Your task to perform on an android device: change the clock style Image 0: 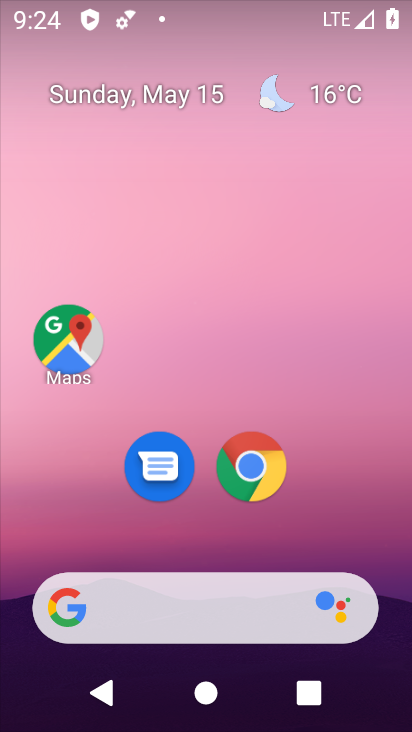
Step 0: drag from (88, 562) to (225, 127)
Your task to perform on an android device: change the clock style Image 1: 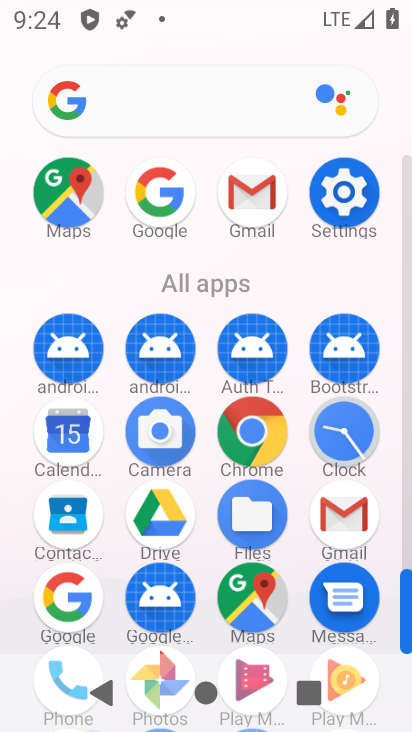
Step 1: click (361, 431)
Your task to perform on an android device: change the clock style Image 2: 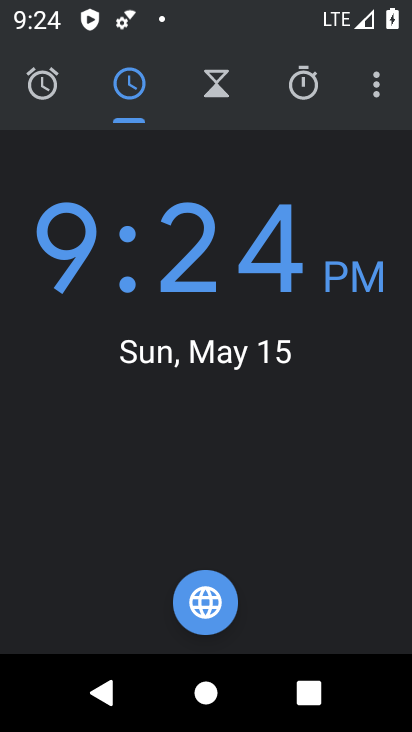
Step 2: click (375, 92)
Your task to perform on an android device: change the clock style Image 3: 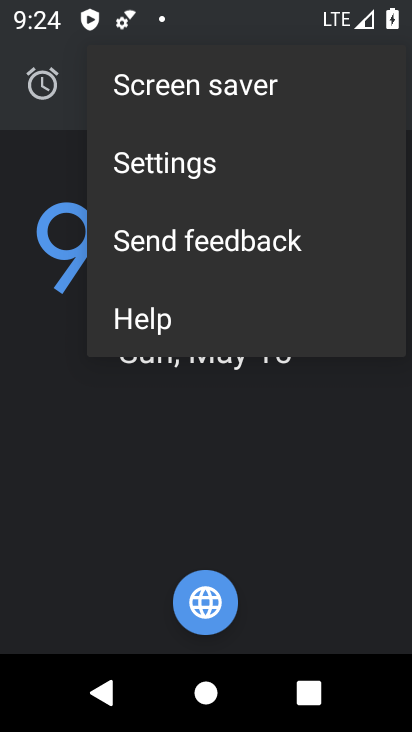
Step 3: click (309, 155)
Your task to perform on an android device: change the clock style Image 4: 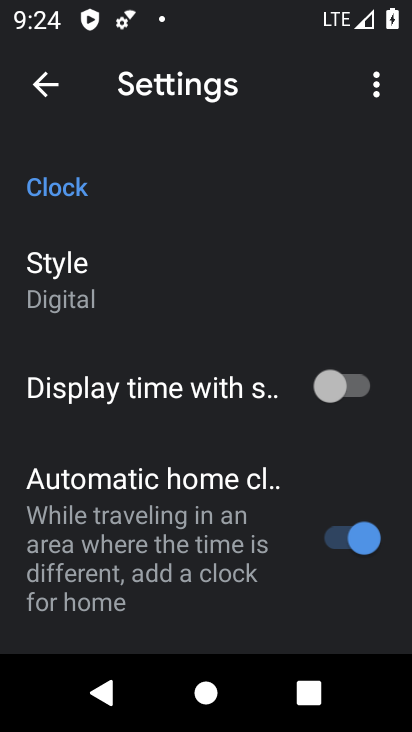
Step 4: click (262, 279)
Your task to perform on an android device: change the clock style Image 5: 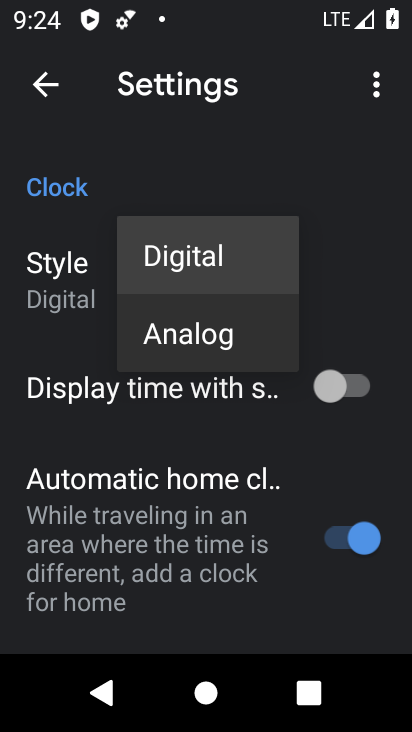
Step 5: click (219, 347)
Your task to perform on an android device: change the clock style Image 6: 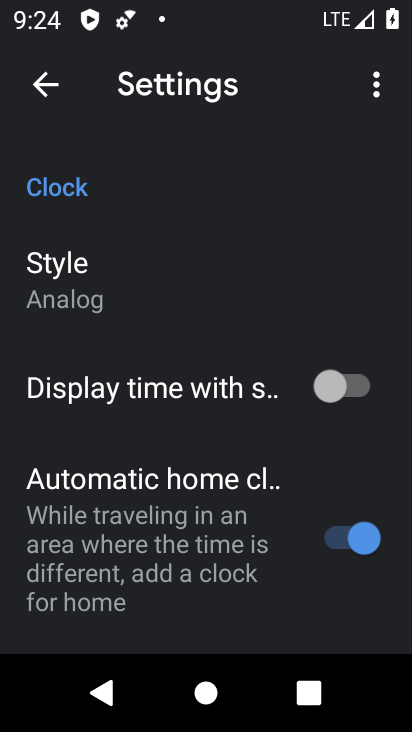
Step 6: task complete